Your task to perform on an android device: toggle airplane mode Image 0: 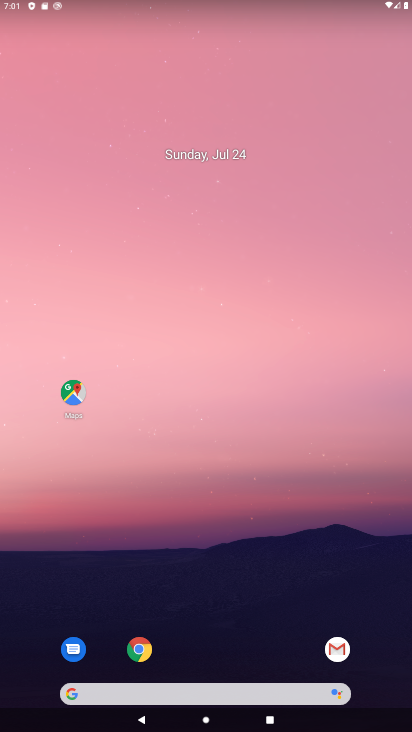
Step 0: drag from (310, 709) to (250, 132)
Your task to perform on an android device: toggle airplane mode Image 1: 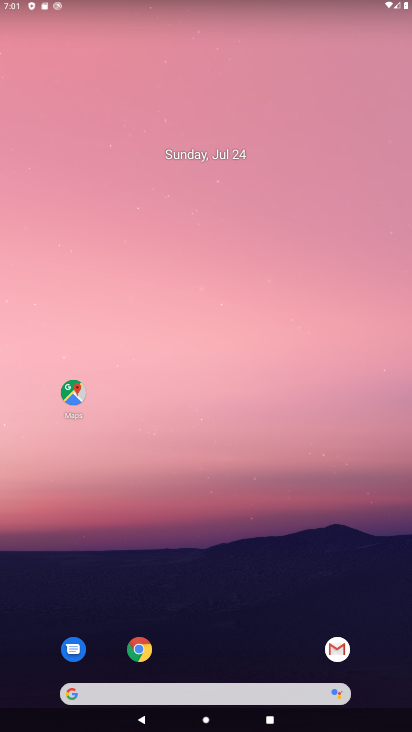
Step 1: drag from (246, 717) to (292, 32)
Your task to perform on an android device: toggle airplane mode Image 2: 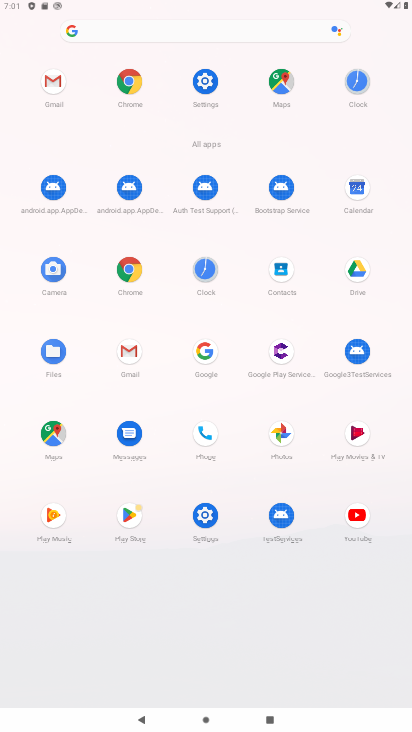
Step 2: click (210, 510)
Your task to perform on an android device: toggle airplane mode Image 3: 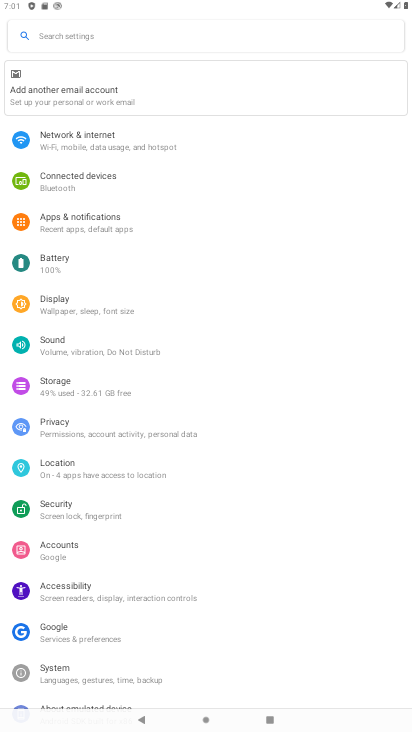
Step 3: click (106, 137)
Your task to perform on an android device: toggle airplane mode Image 4: 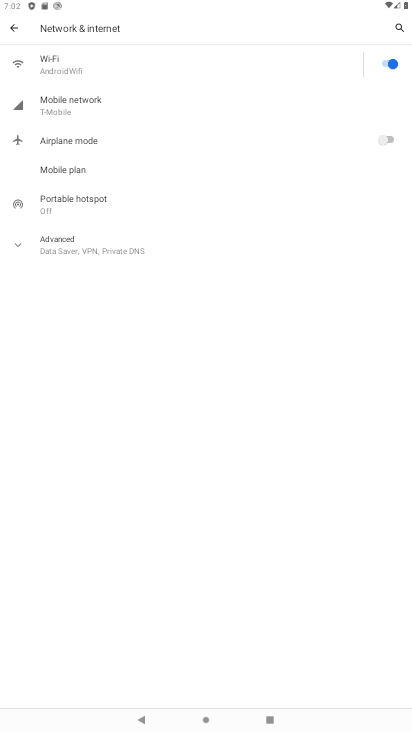
Step 4: task complete